Your task to perform on an android device: turn on priority inbox in the gmail app Image 0: 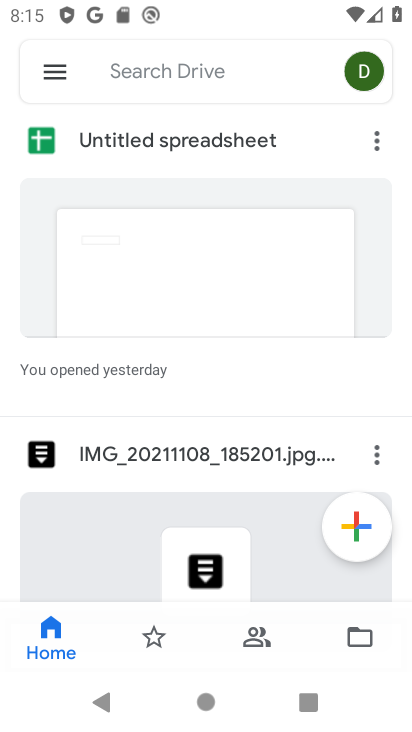
Step 0: press home button
Your task to perform on an android device: turn on priority inbox in the gmail app Image 1: 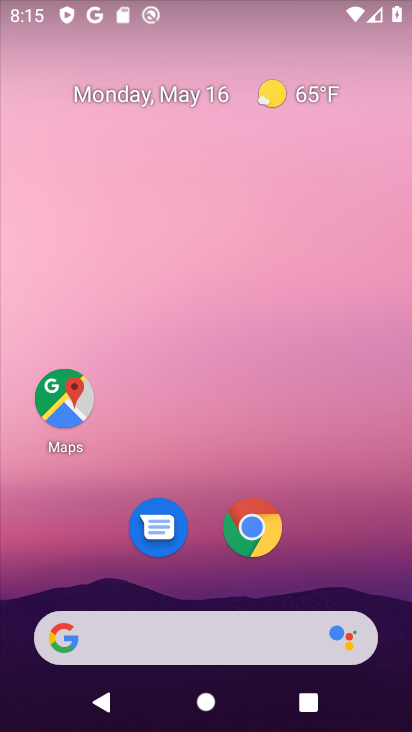
Step 1: drag from (323, 474) to (320, 175)
Your task to perform on an android device: turn on priority inbox in the gmail app Image 2: 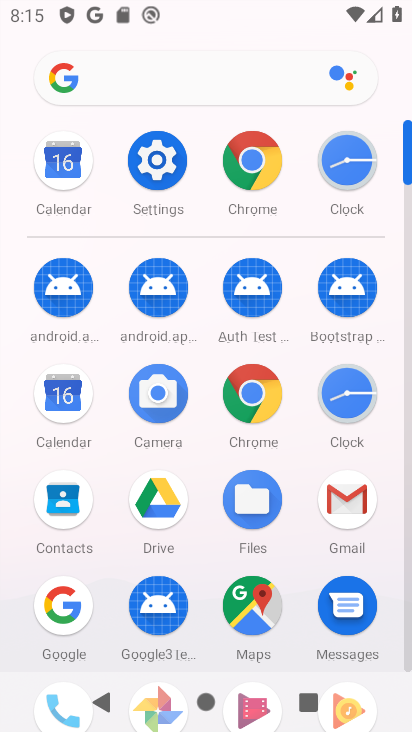
Step 2: click (352, 494)
Your task to perform on an android device: turn on priority inbox in the gmail app Image 3: 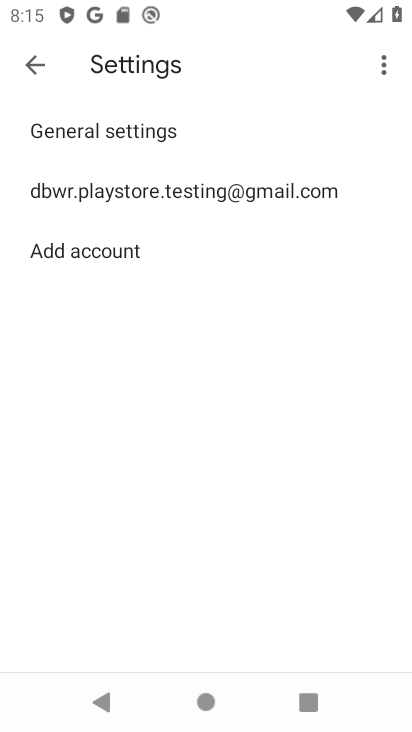
Step 3: click (47, 183)
Your task to perform on an android device: turn on priority inbox in the gmail app Image 4: 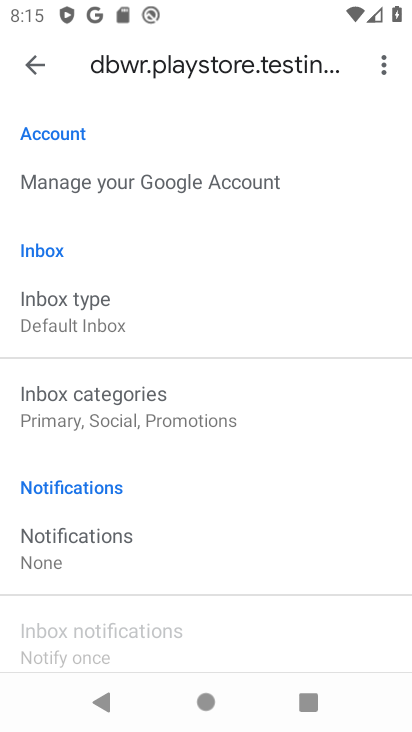
Step 4: click (69, 308)
Your task to perform on an android device: turn on priority inbox in the gmail app Image 5: 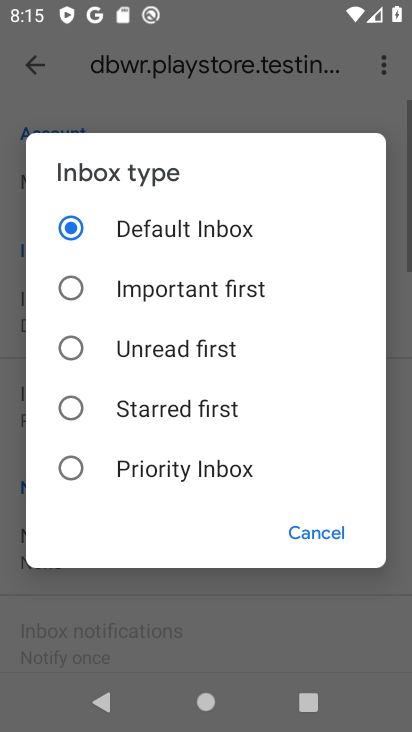
Step 5: click (139, 468)
Your task to perform on an android device: turn on priority inbox in the gmail app Image 6: 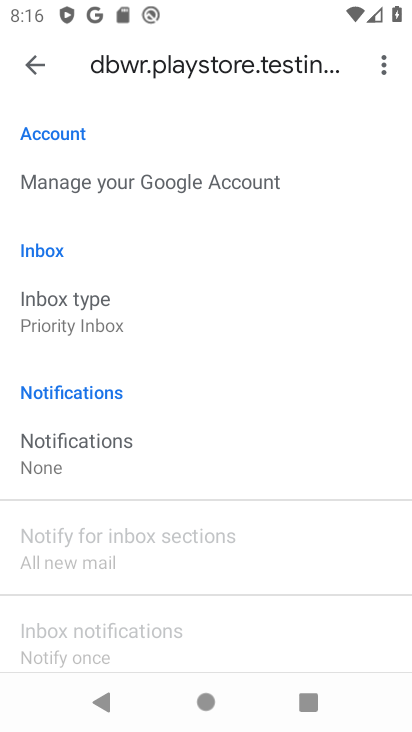
Step 6: task complete